Your task to perform on an android device: Open Reddit.com Image 0: 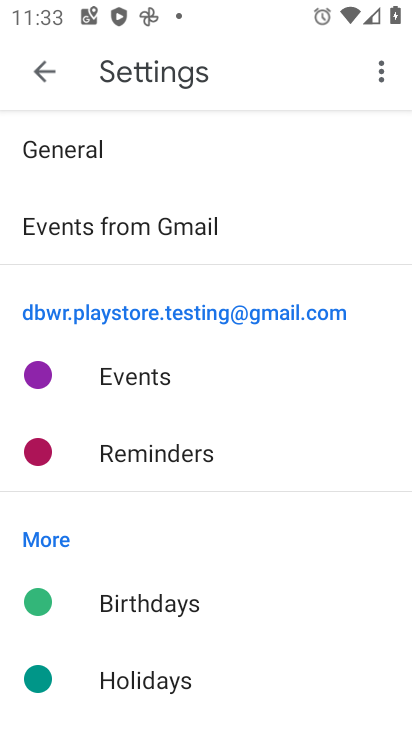
Step 0: press home button
Your task to perform on an android device: Open Reddit.com Image 1: 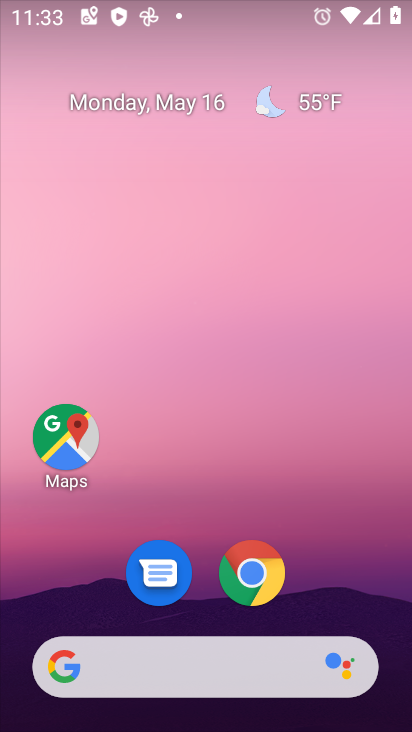
Step 1: click (252, 569)
Your task to perform on an android device: Open Reddit.com Image 2: 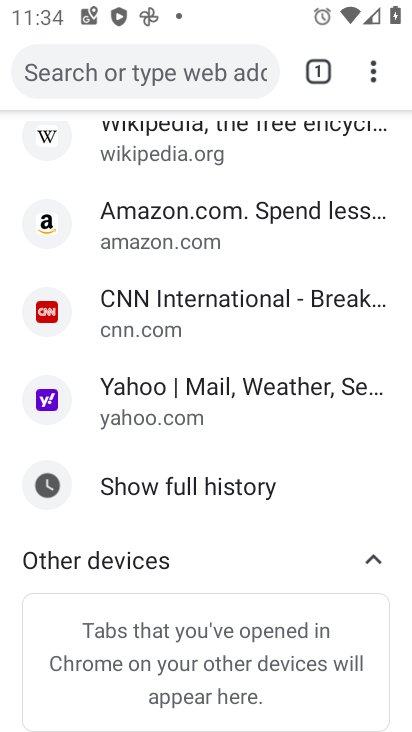
Step 2: click (203, 74)
Your task to perform on an android device: Open Reddit.com Image 3: 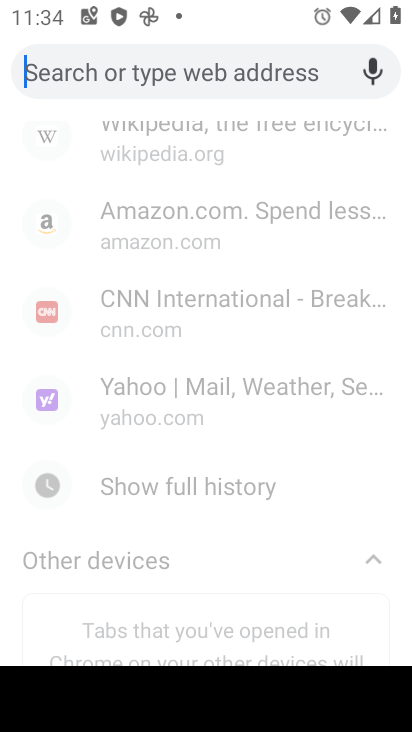
Step 3: type "reddit.com"
Your task to perform on an android device: Open Reddit.com Image 4: 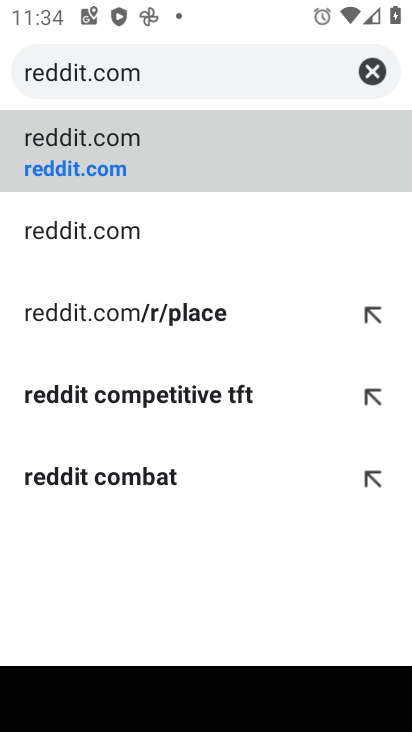
Step 4: click (203, 119)
Your task to perform on an android device: Open Reddit.com Image 5: 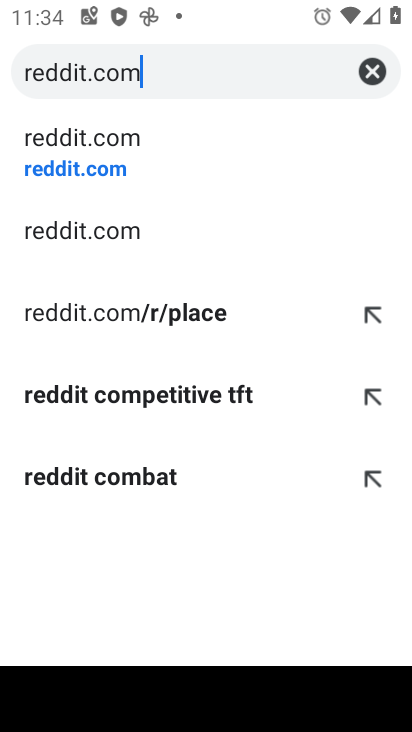
Step 5: click (58, 148)
Your task to perform on an android device: Open Reddit.com Image 6: 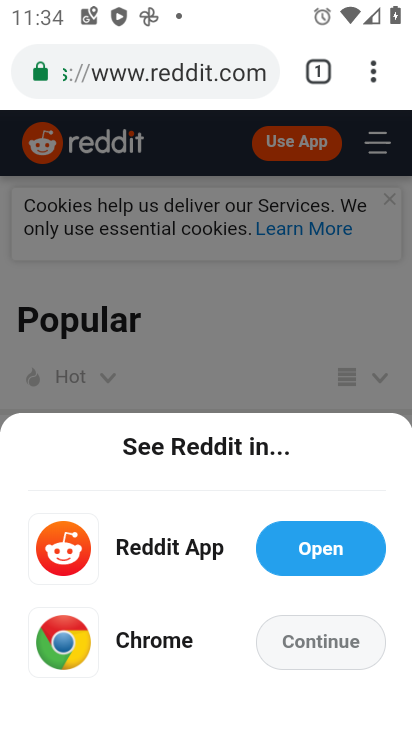
Step 6: click (308, 655)
Your task to perform on an android device: Open Reddit.com Image 7: 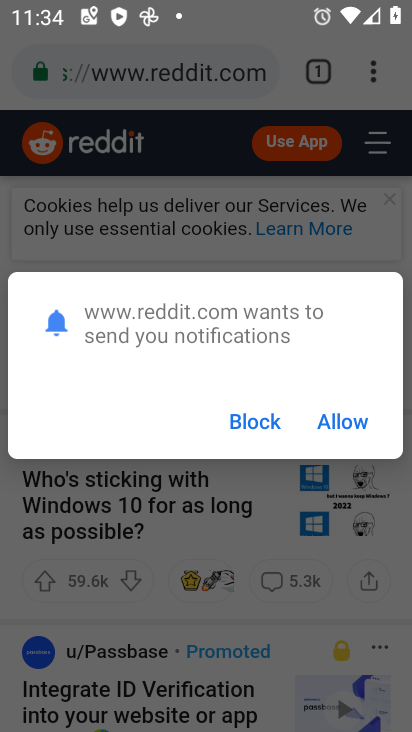
Step 7: click (342, 414)
Your task to perform on an android device: Open Reddit.com Image 8: 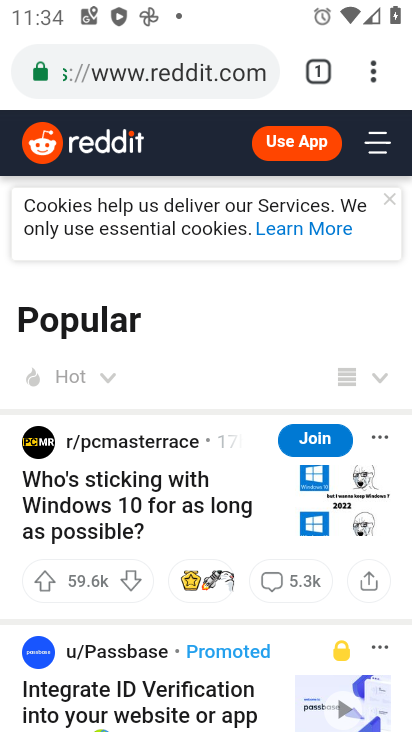
Step 8: task complete